Your task to perform on an android device: What's the weather today? Image 0: 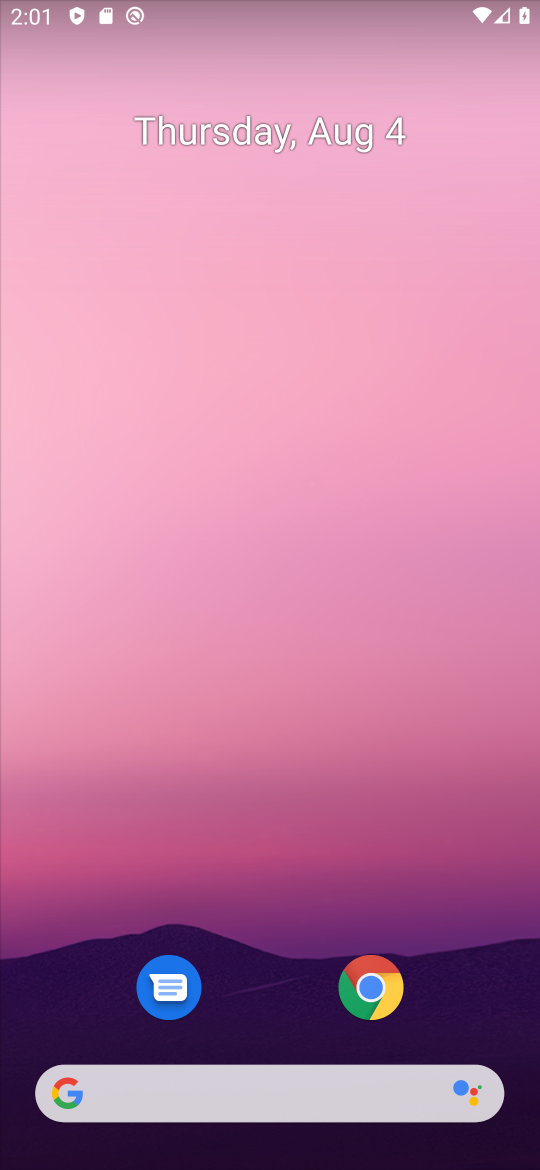
Step 0: drag from (502, 952) to (263, 132)
Your task to perform on an android device: What's the weather today? Image 1: 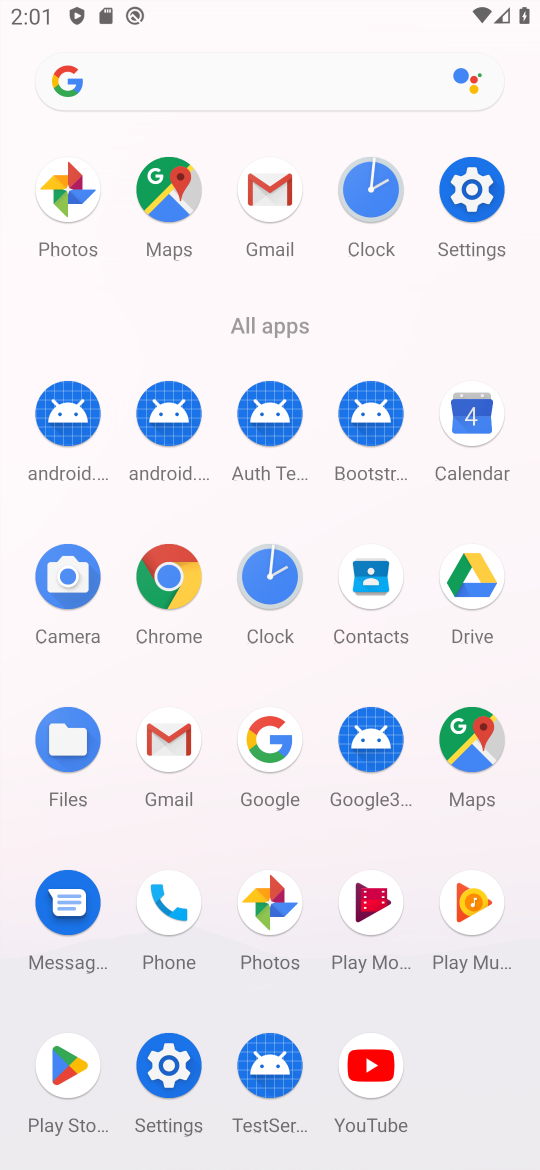
Step 1: click (270, 757)
Your task to perform on an android device: What's the weather today? Image 2: 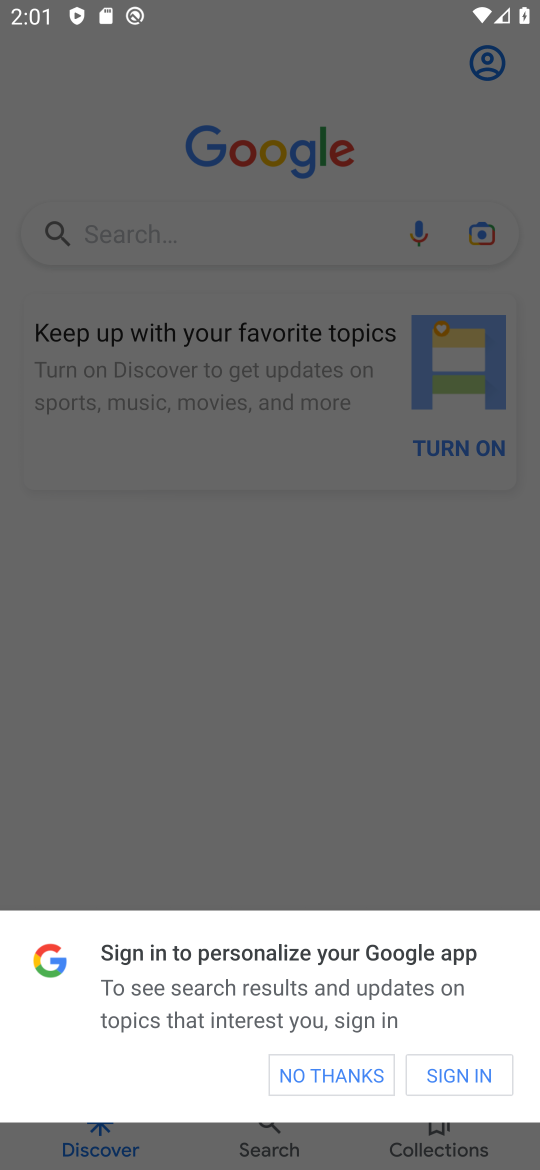
Step 2: click (321, 1085)
Your task to perform on an android device: What's the weather today? Image 3: 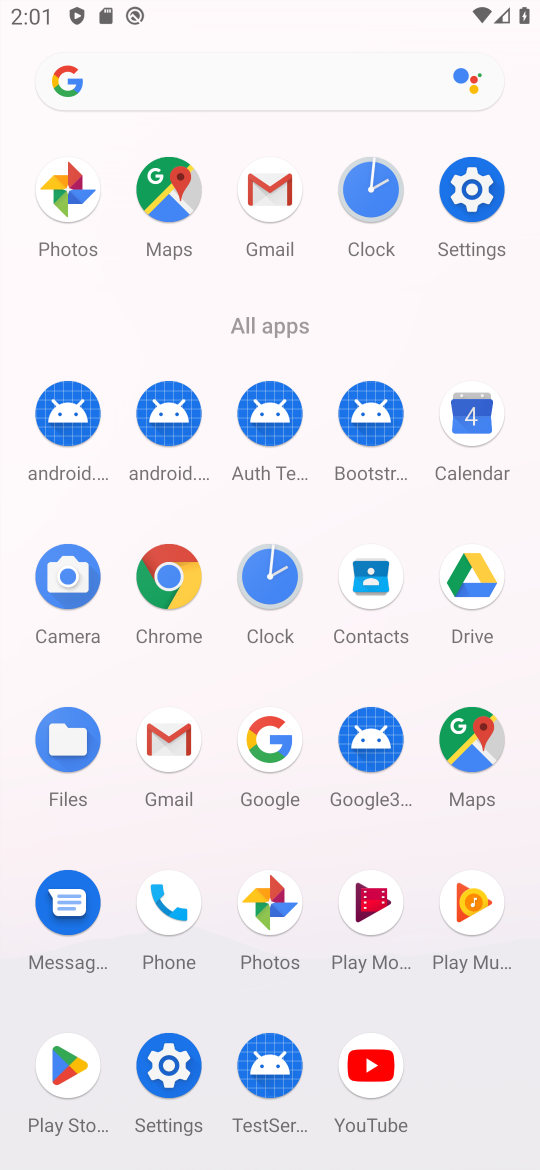
Step 3: click (281, 751)
Your task to perform on an android device: What's the weather today? Image 4: 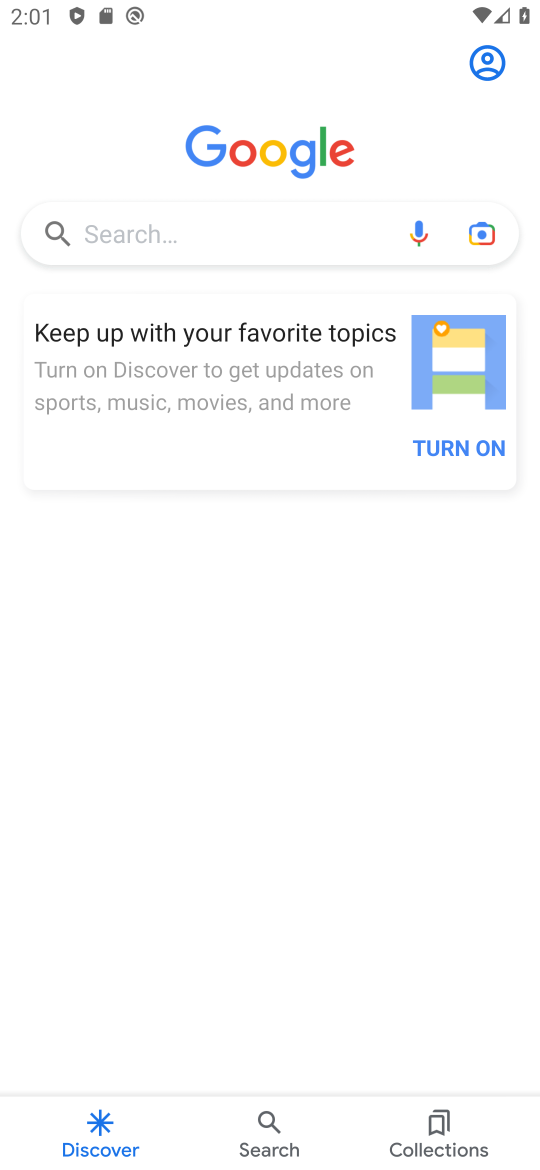
Step 4: click (154, 247)
Your task to perform on an android device: What's the weather today? Image 5: 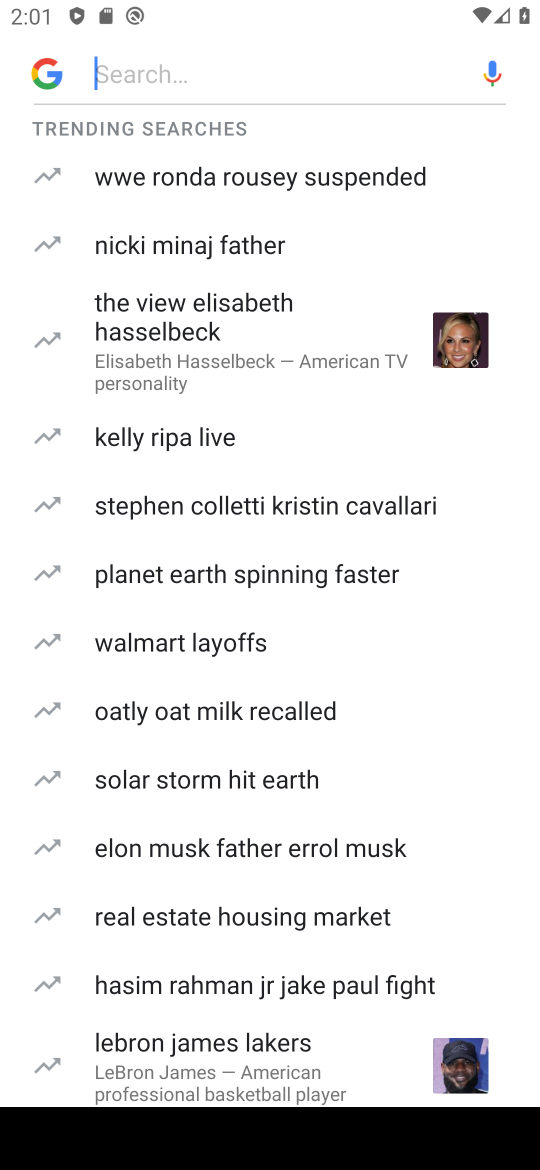
Step 5: type "What's the weather today?"
Your task to perform on an android device: What's the weather today? Image 6: 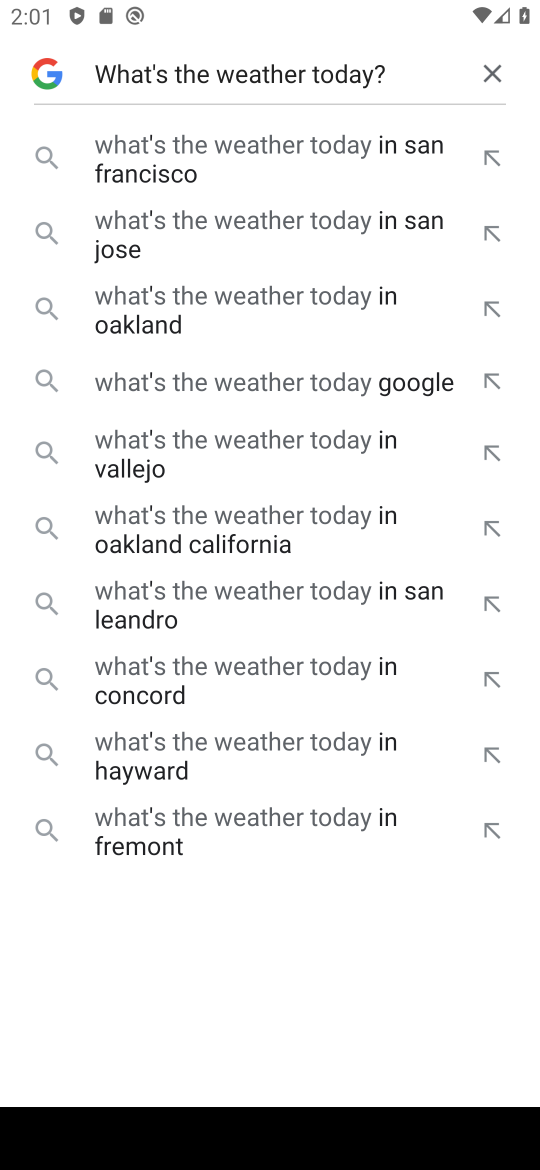
Step 6: click (257, 369)
Your task to perform on an android device: What's the weather today? Image 7: 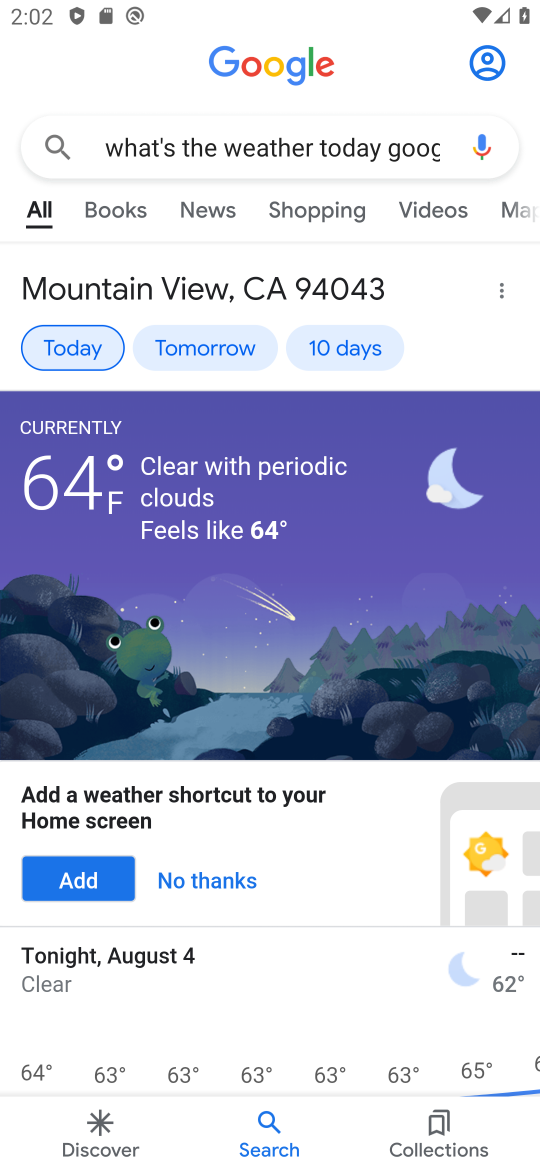
Step 7: task complete